Your task to perform on an android device: What is the news today? Image 0: 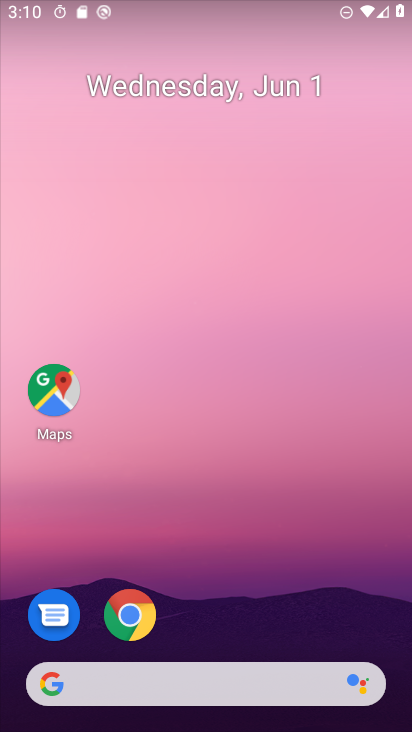
Step 0: drag from (297, 611) to (306, 2)
Your task to perform on an android device: What is the news today? Image 1: 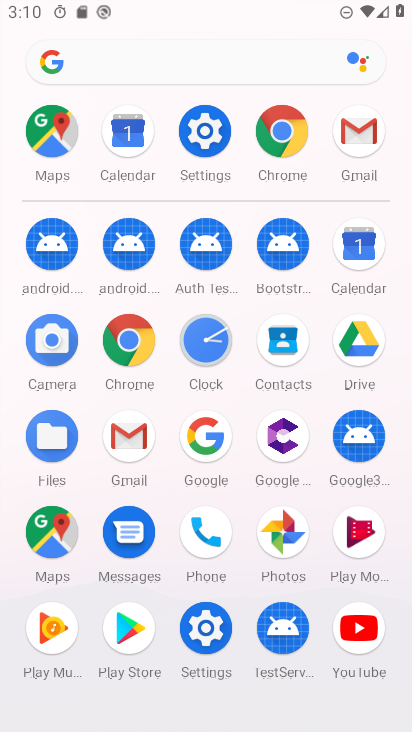
Step 1: click (120, 344)
Your task to perform on an android device: What is the news today? Image 2: 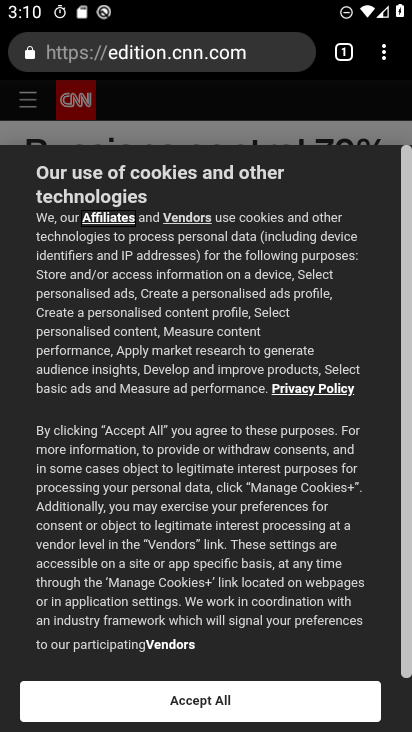
Step 2: click (210, 56)
Your task to perform on an android device: What is the news today? Image 3: 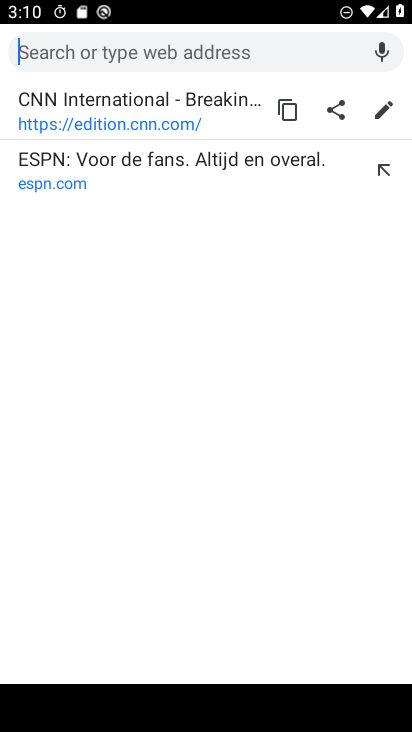
Step 3: type "news today"
Your task to perform on an android device: What is the news today? Image 4: 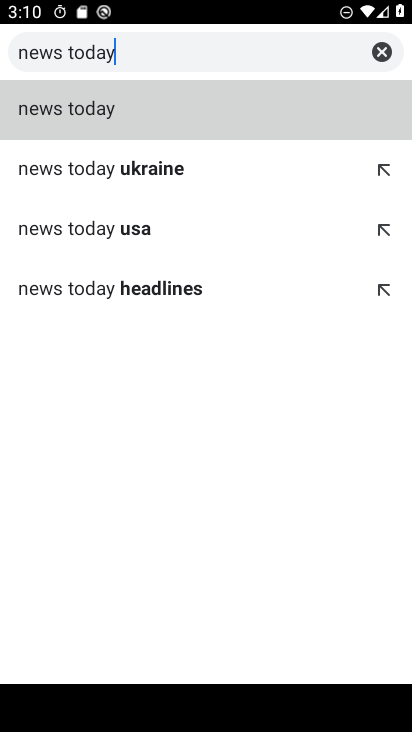
Step 4: click (128, 103)
Your task to perform on an android device: What is the news today? Image 5: 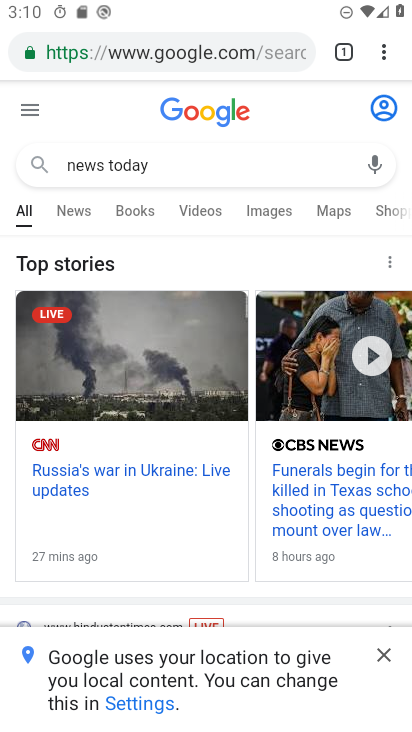
Step 5: task complete